Your task to perform on an android device: Open Chrome and go to settings Image 0: 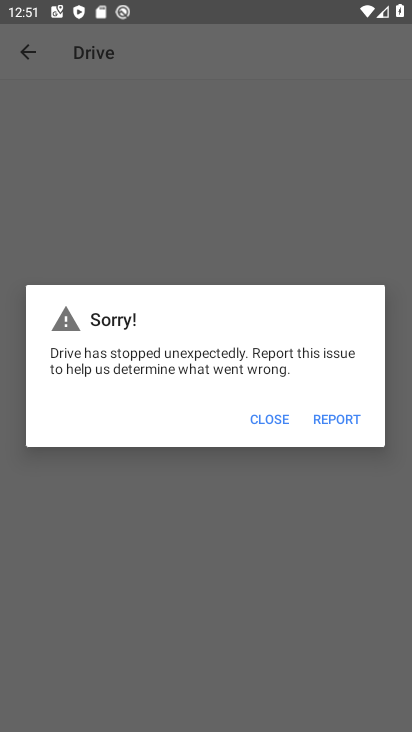
Step 0: press home button
Your task to perform on an android device: Open Chrome and go to settings Image 1: 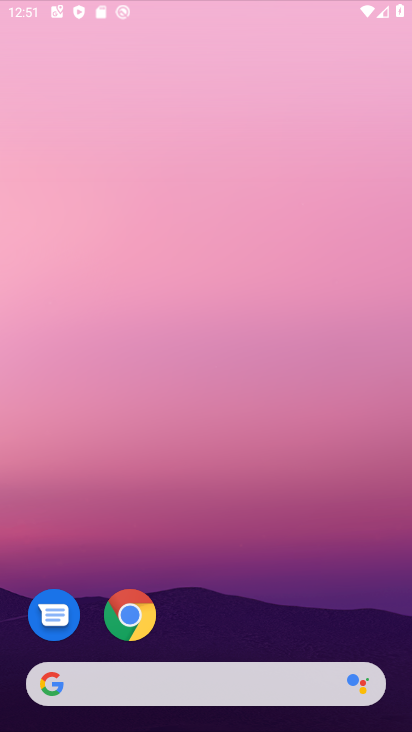
Step 1: drag from (274, 662) to (252, 0)
Your task to perform on an android device: Open Chrome and go to settings Image 2: 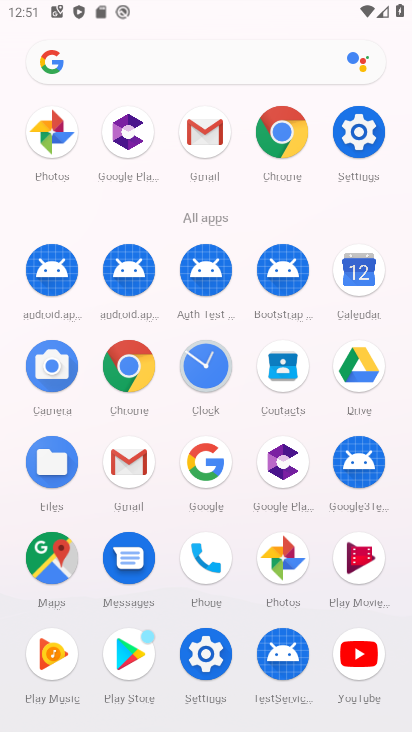
Step 2: click (129, 359)
Your task to perform on an android device: Open Chrome and go to settings Image 3: 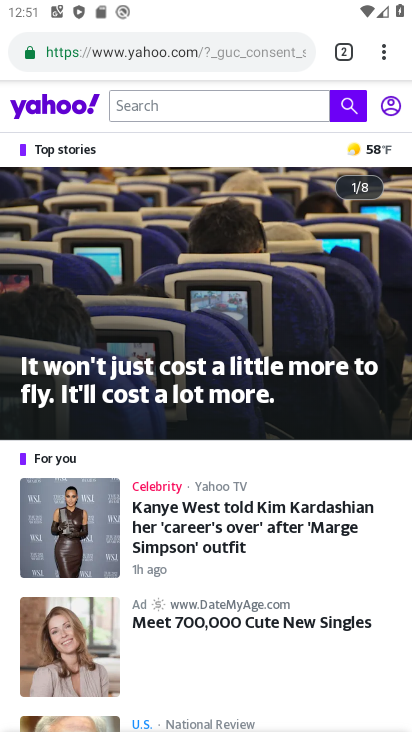
Step 3: drag from (386, 56) to (231, 628)
Your task to perform on an android device: Open Chrome and go to settings Image 4: 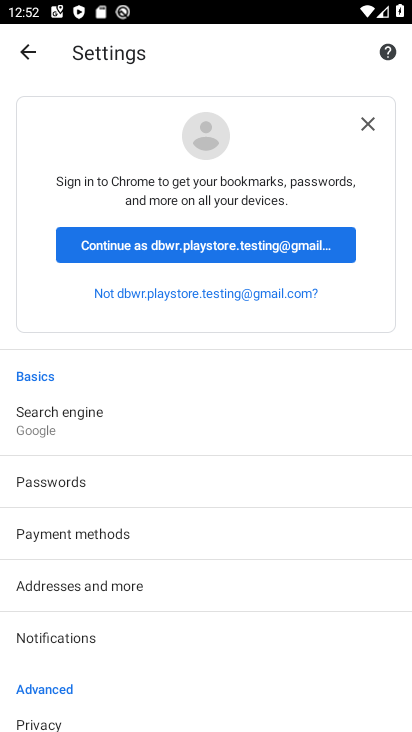
Step 4: drag from (168, 707) to (197, 161)
Your task to perform on an android device: Open Chrome and go to settings Image 5: 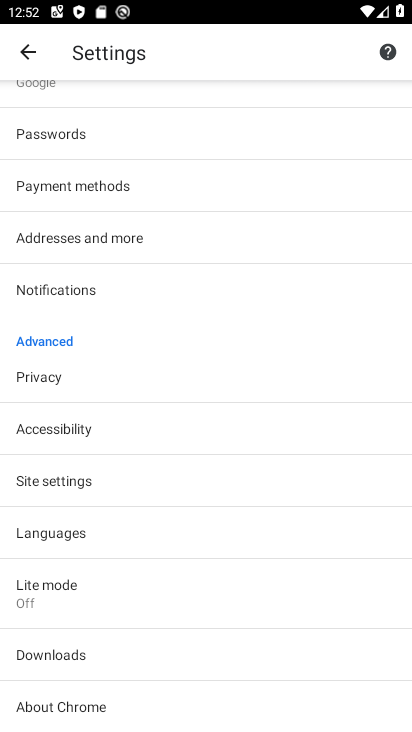
Step 5: click (109, 483)
Your task to perform on an android device: Open Chrome and go to settings Image 6: 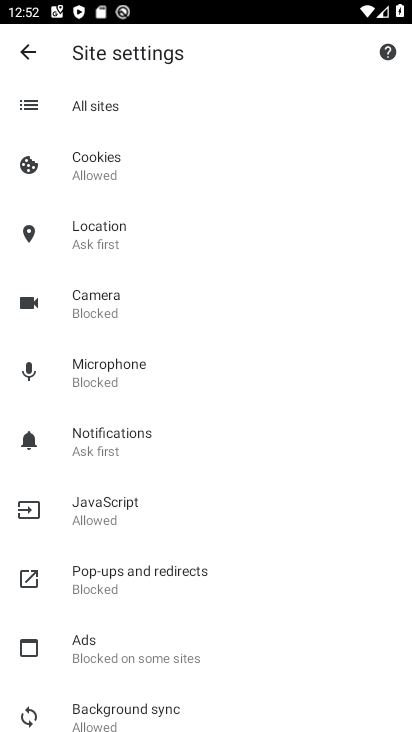
Step 6: task complete